Your task to perform on an android device: empty trash in the gmail app Image 0: 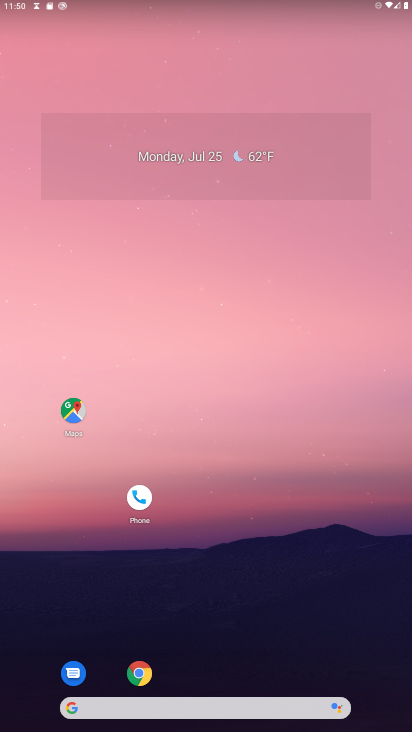
Step 0: press home button
Your task to perform on an android device: empty trash in the gmail app Image 1: 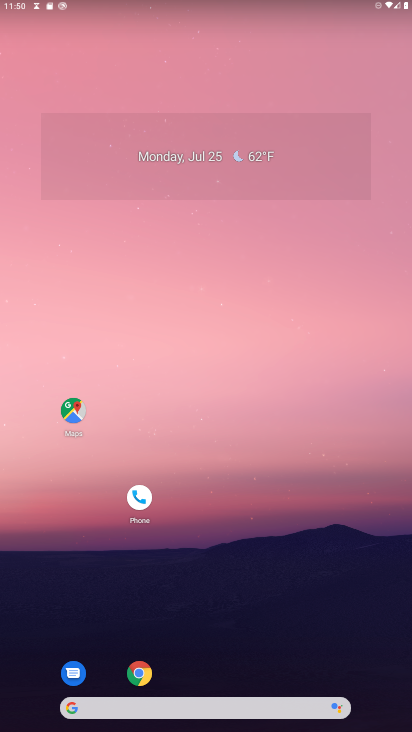
Step 1: drag from (248, 650) to (285, 22)
Your task to perform on an android device: empty trash in the gmail app Image 2: 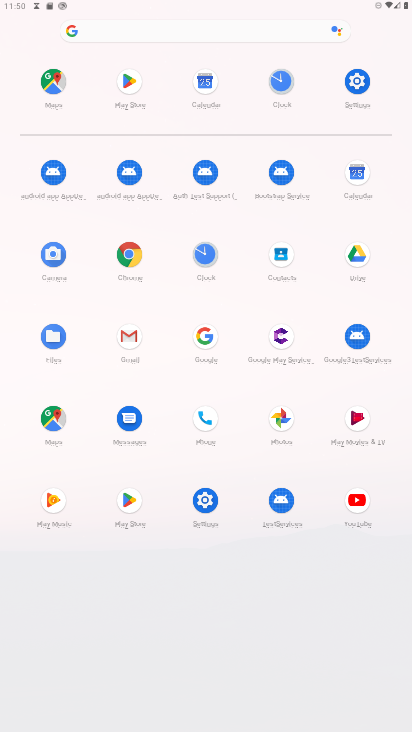
Step 2: click (127, 341)
Your task to perform on an android device: empty trash in the gmail app Image 3: 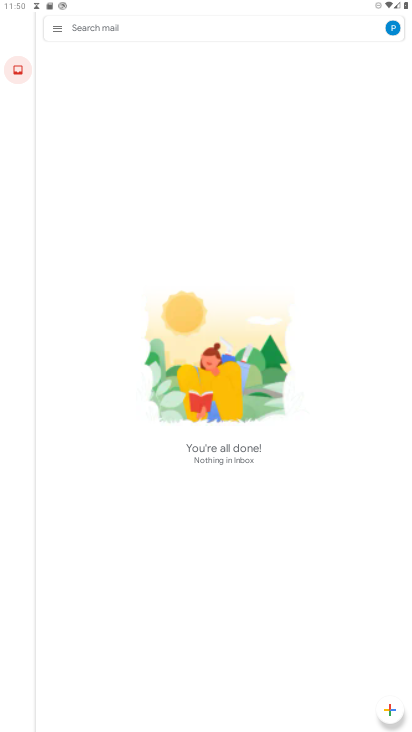
Step 3: click (53, 26)
Your task to perform on an android device: empty trash in the gmail app Image 4: 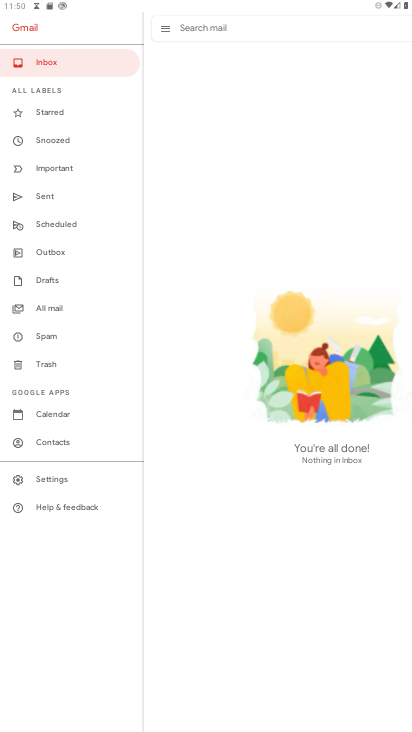
Step 4: click (46, 360)
Your task to perform on an android device: empty trash in the gmail app Image 5: 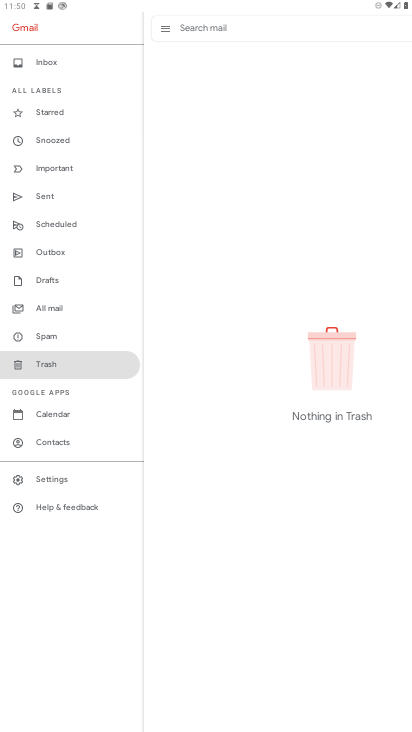
Step 5: task complete